Your task to perform on an android device: Go to location settings Image 0: 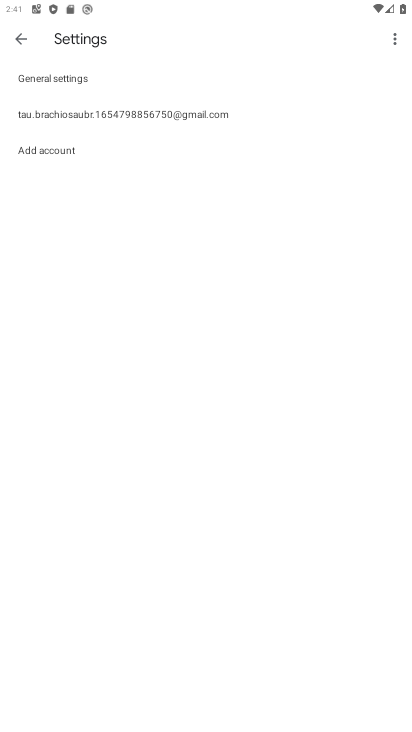
Step 0: press home button
Your task to perform on an android device: Go to location settings Image 1: 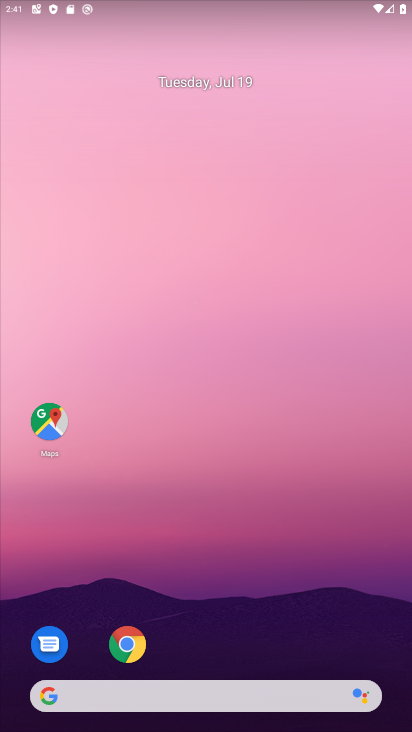
Step 1: drag from (236, 634) to (174, 157)
Your task to perform on an android device: Go to location settings Image 2: 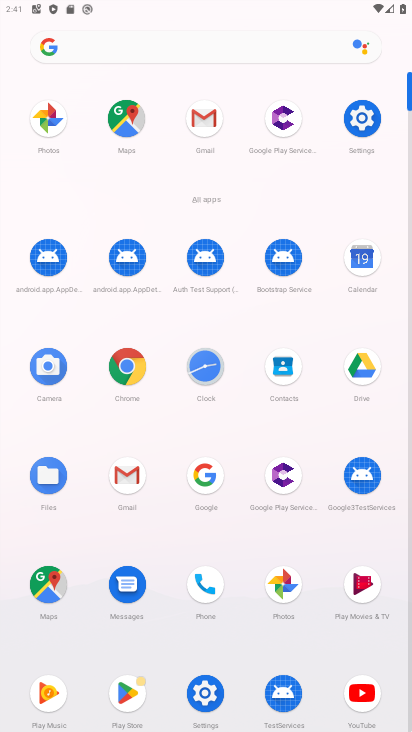
Step 2: click (366, 126)
Your task to perform on an android device: Go to location settings Image 3: 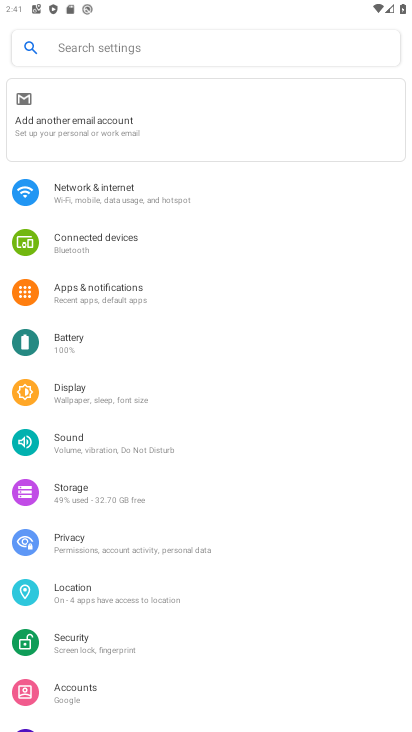
Step 3: click (135, 592)
Your task to perform on an android device: Go to location settings Image 4: 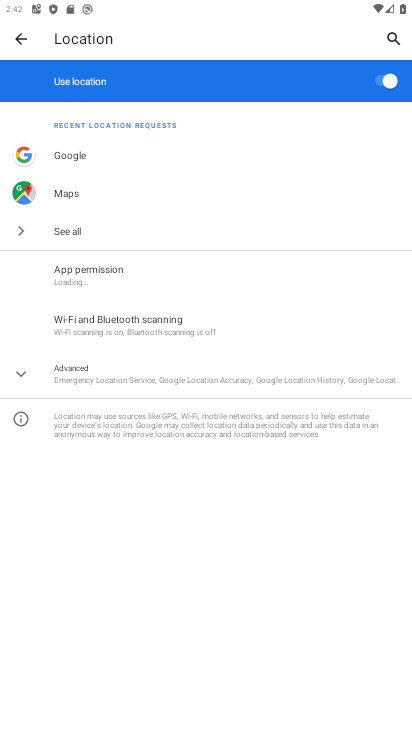
Step 4: task complete